Your task to perform on an android device: see tabs open on other devices in the chrome app Image 0: 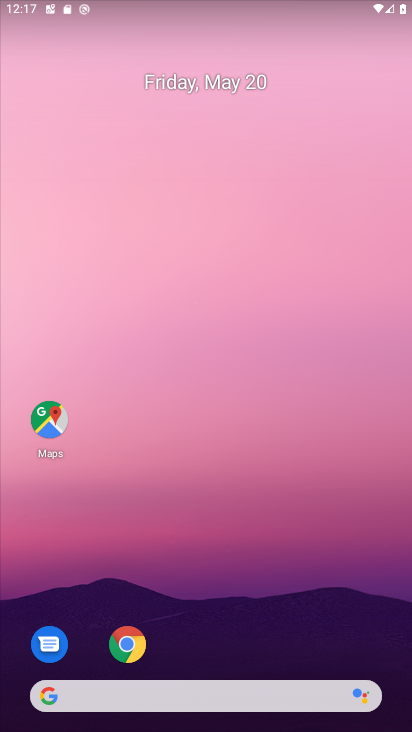
Step 0: click (128, 636)
Your task to perform on an android device: see tabs open on other devices in the chrome app Image 1: 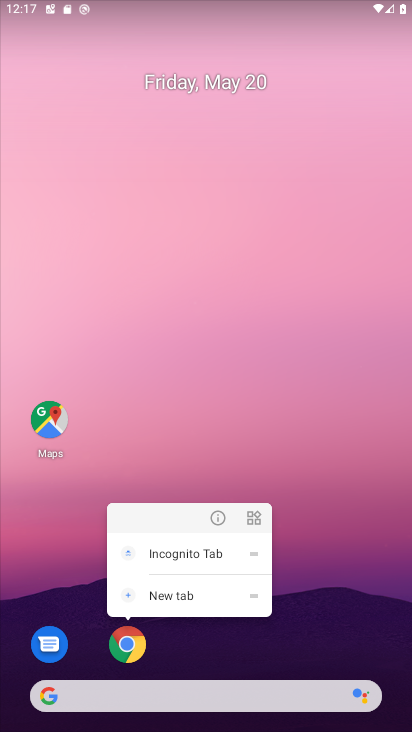
Step 1: click (131, 645)
Your task to perform on an android device: see tabs open on other devices in the chrome app Image 2: 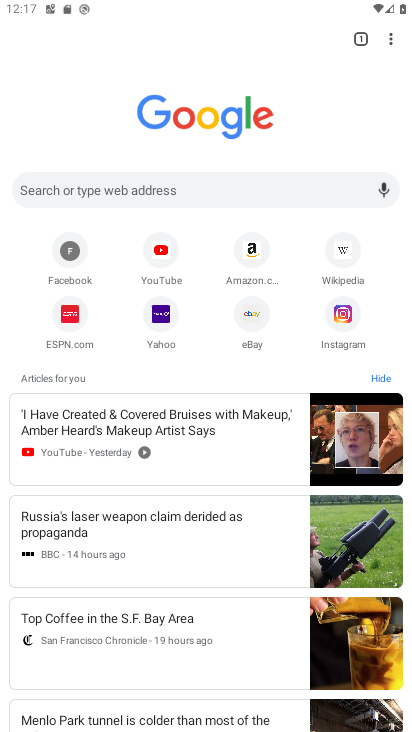
Step 2: click (362, 40)
Your task to perform on an android device: see tabs open on other devices in the chrome app Image 3: 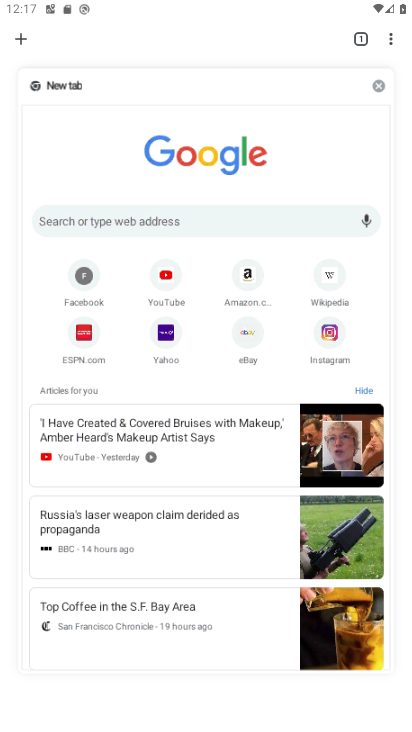
Step 3: task complete